Your task to perform on an android device: star an email in the gmail app Image 0: 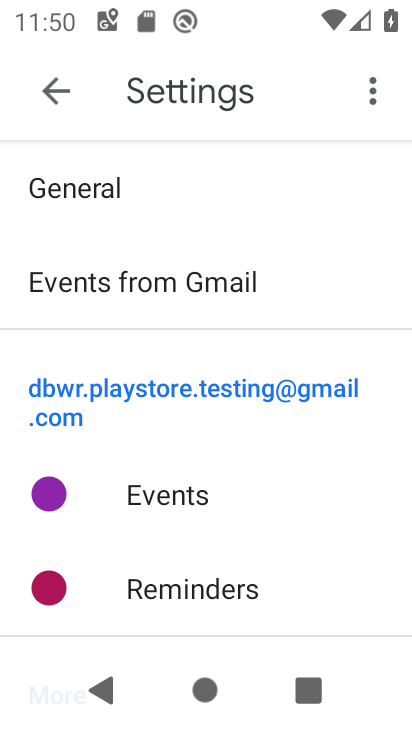
Step 0: press home button
Your task to perform on an android device: star an email in the gmail app Image 1: 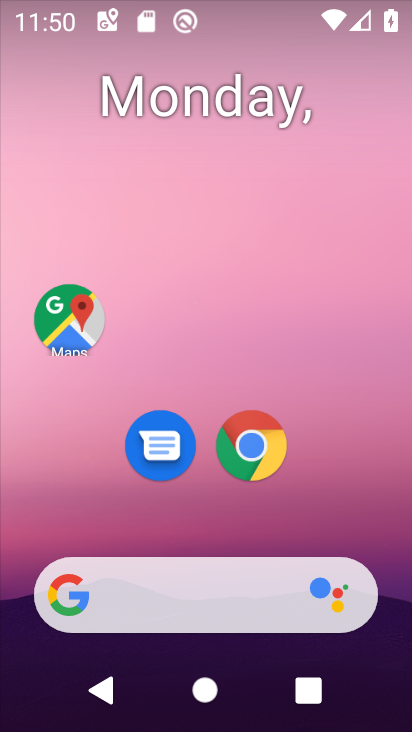
Step 1: drag from (319, 487) to (221, 37)
Your task to perform on an android device: star an email in the gmail app Image 2: 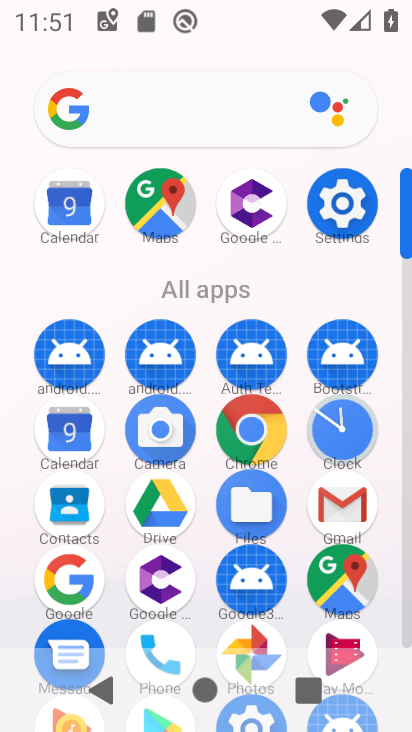
Step 2: click (334, 504)
Your task to perform on an android device: star an email in the gmail app Image 3: 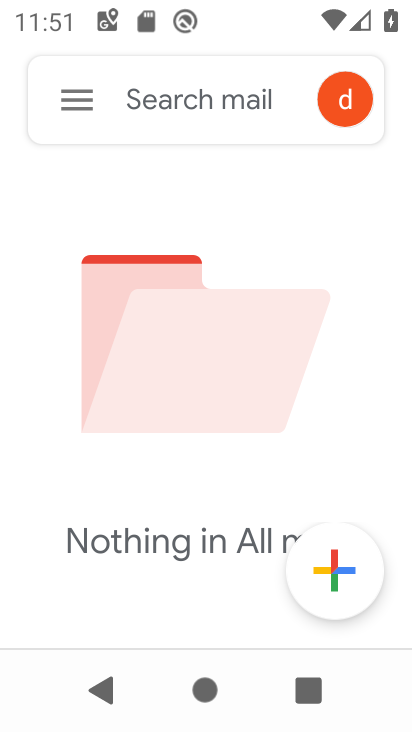
Step 3: click (69, 96)
Your task to perform on an android device: star an email in the gmail app Image 4: 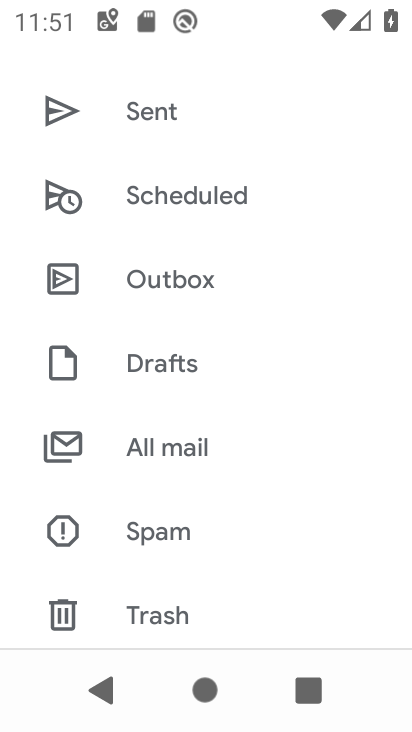
Step 4: drag from (269, 480) to (261, 227)
Your task to perform on an android device: star an email in the gmail app Image 5: 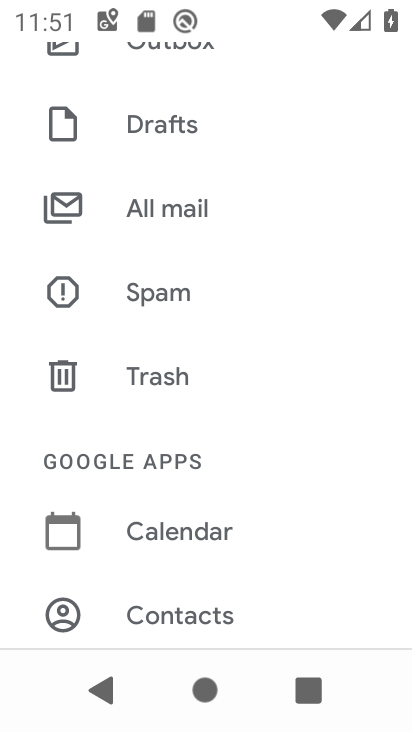
Step 5: click (164, 199)
Your task to perform on an android device: star an email in the gmail app Image 6: 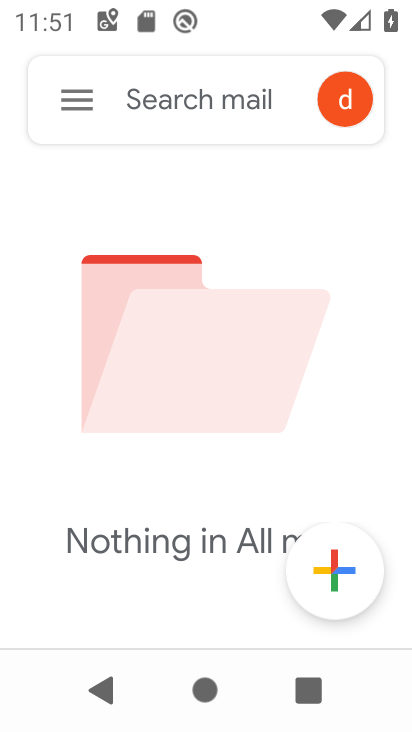
Step 6: task complete